Your task to perform on an android device: Go to Wikipedia Image 0: 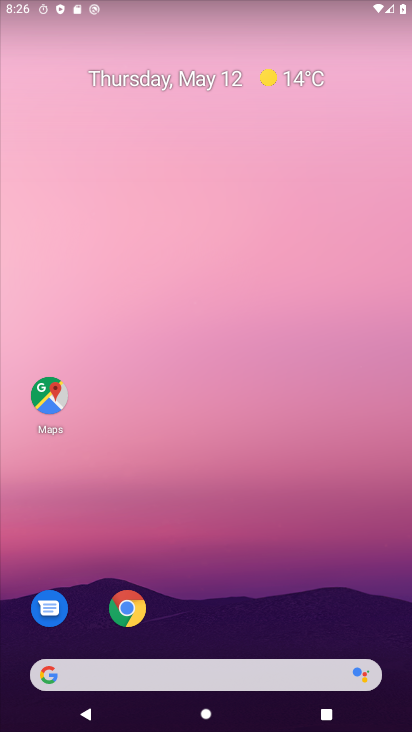
Step 0: click (143, 610)
Your task to perform on an android device: Go to Wikipedia Image 1: 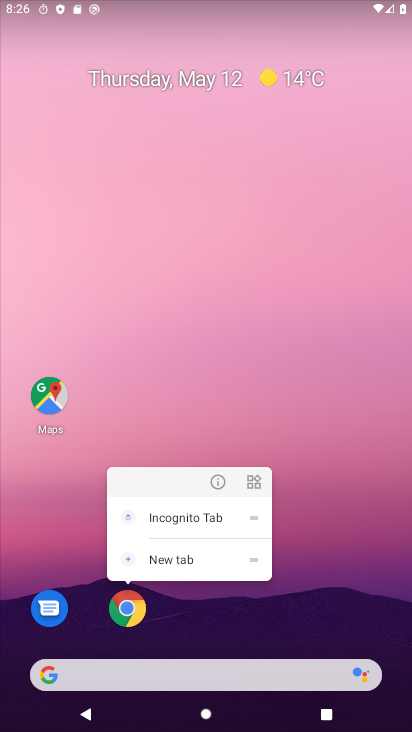
Step 1: click (128, 598)
Your task to perform on an android device: Go to Wikipedia Image 2: 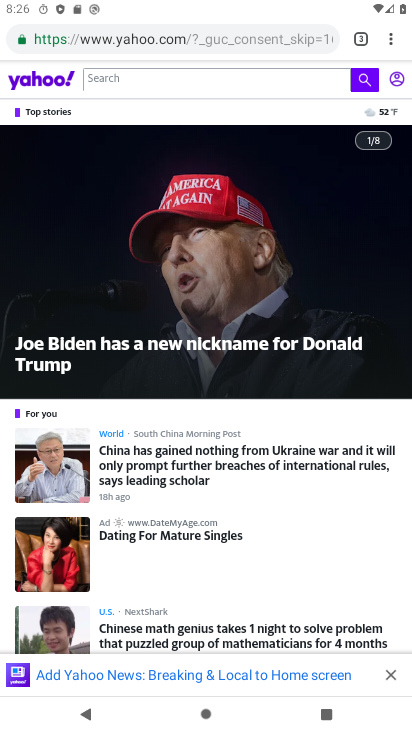
Step 2: click (353, 37)
Your task to perform on an android device: Go to Wikipedia Image 3: 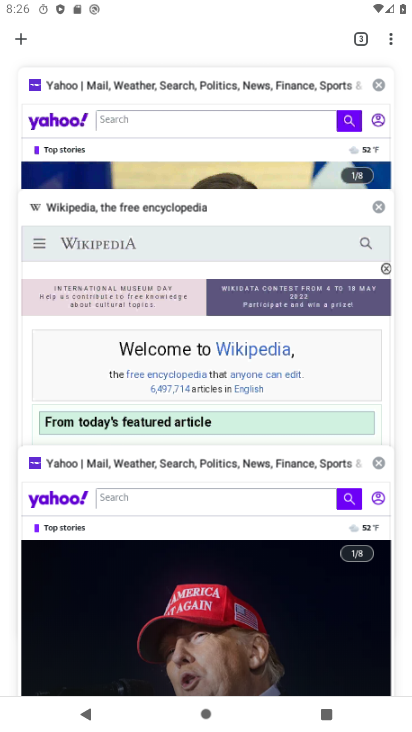
Step 3: click (13, 21)
Your task to perform on an android device: Go to Wikipedia Image 4: 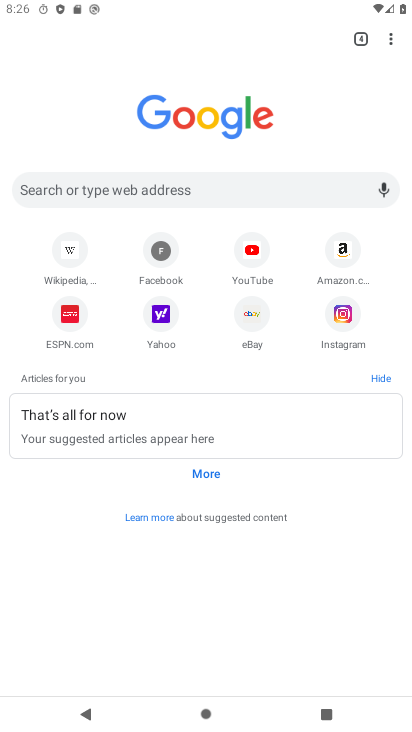
Step 4: click (64, 259)
Your task to perform on an android device: Go to Wikipedia Image 5: 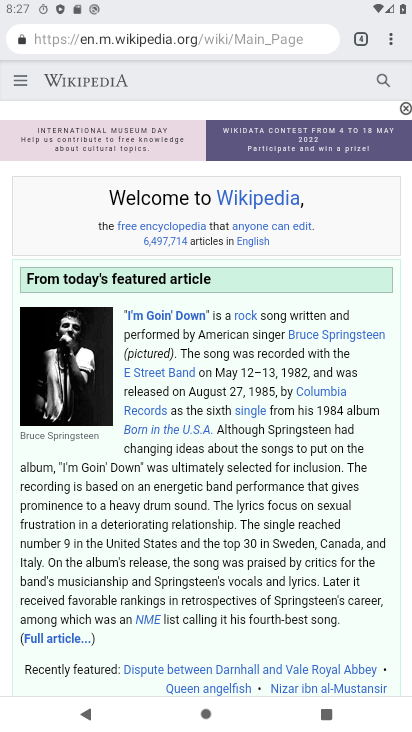
Step 5: task complete